Your task to perform on an android device: Go to location settings Image 0: 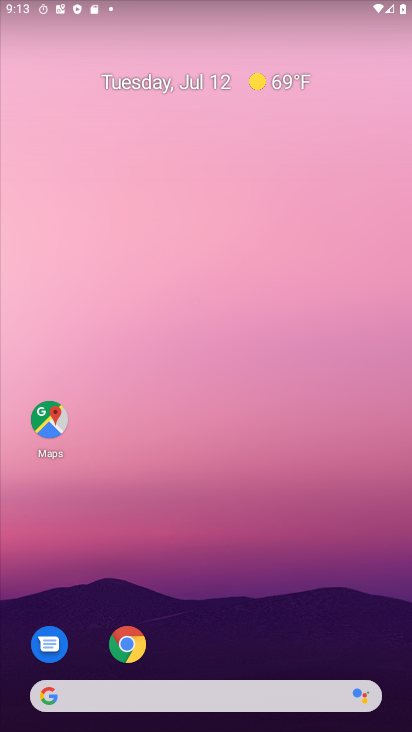
Step 0: press home button
Your task to perform on an android device: Go to location settings Image 1: 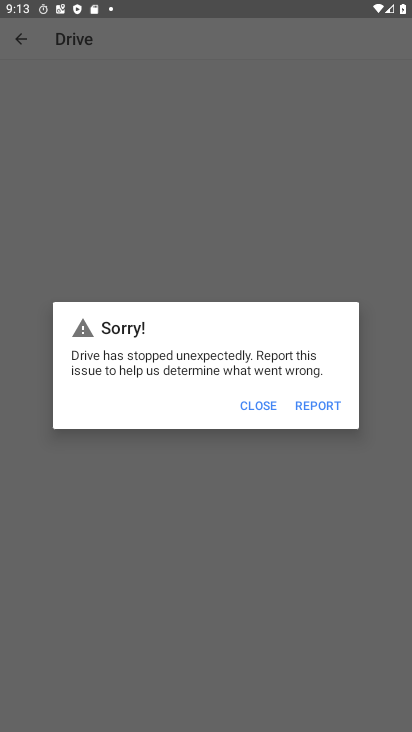
Step 1: click (218, 57)
Your task to perform on an android device: Go to location settings Image 2: 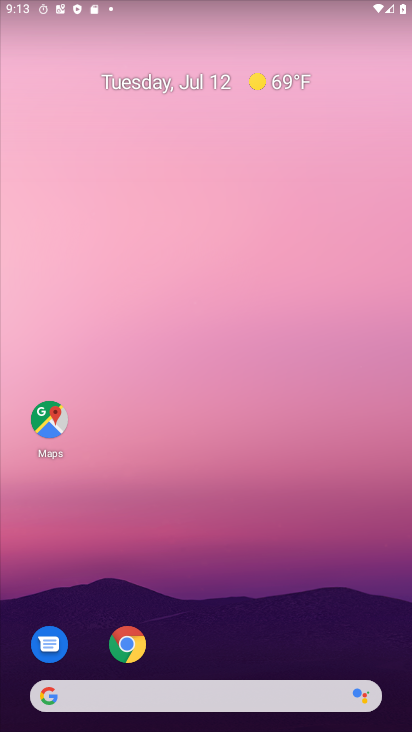
Step 2: drag from (214, 655) to (220, 97)
Your task to perform on an android device: Go to location settings Image 3: 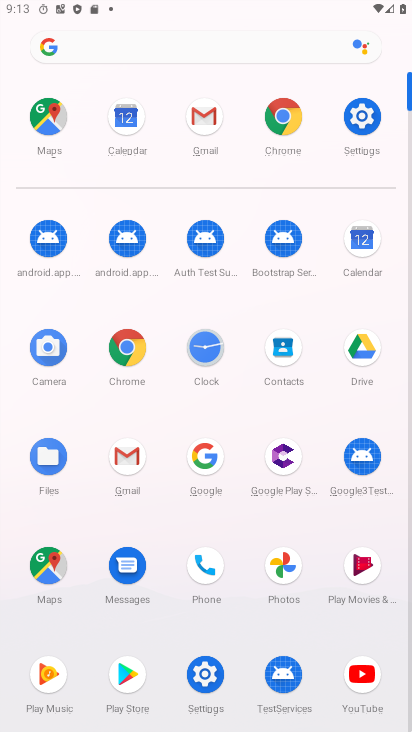
Step 3: click (358, 112)
Your task to perform on an android device: Go to location settings Image 4: 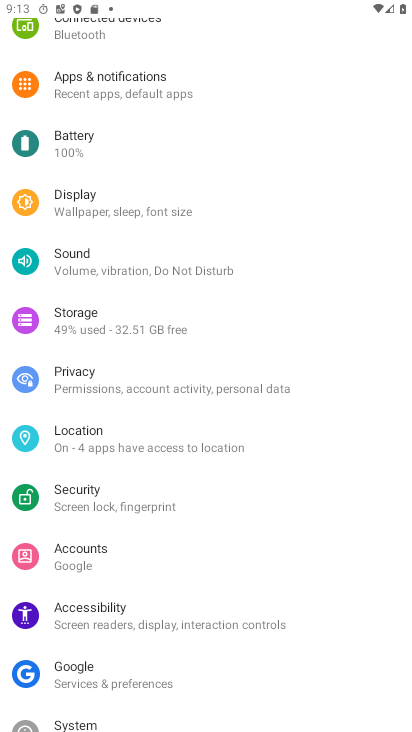
Step 4: click (113, 430)
Your task to perform on an android device: Go to location settings Image 5: 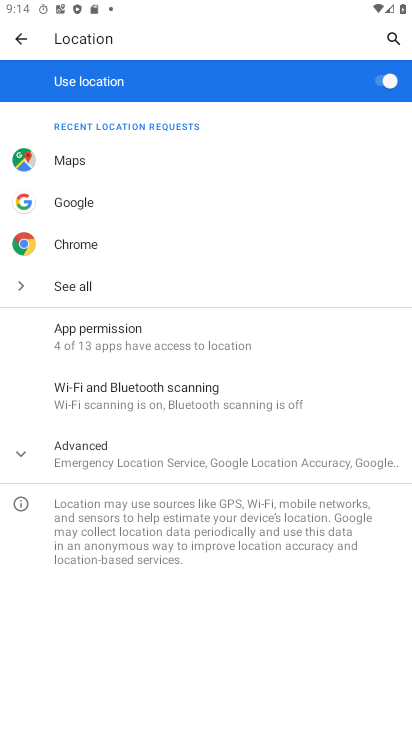
Step 5: click (36, 451)
Your task to perform on an android device: Go to location settings Image 6: 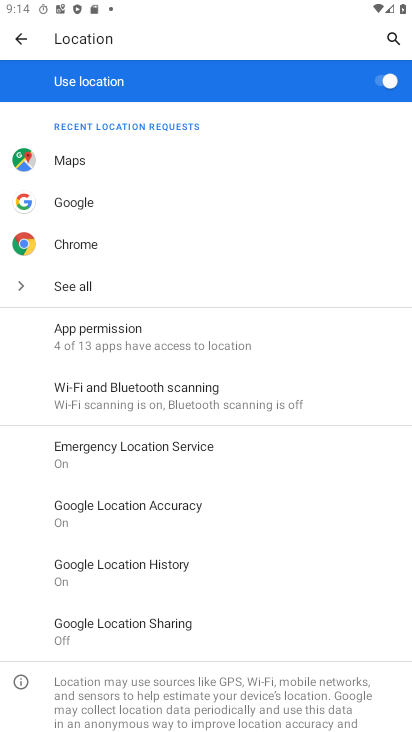
Step 6: task complete